Your task to perform on an android device: turn pop-ups off in chrome Image 0: 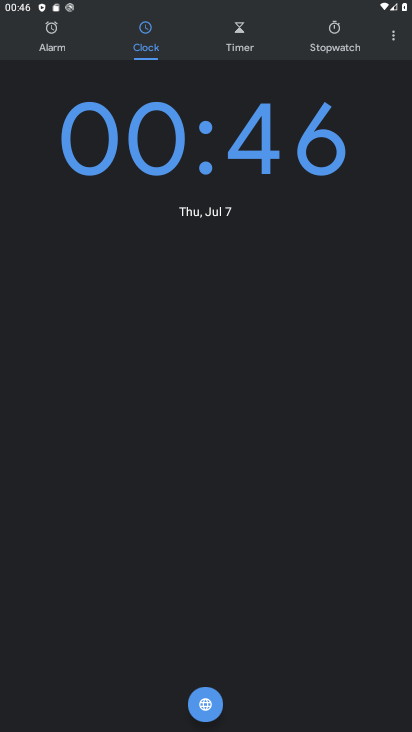
Step 0: press back button
Your task to perform on an android device: turn pop-ups off in chrome Image 1: 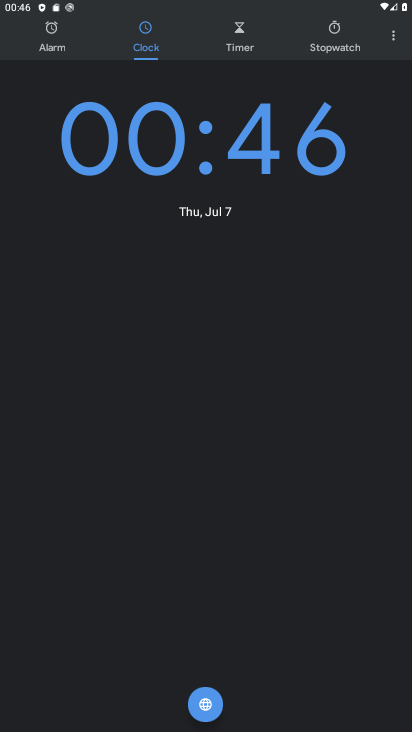
Step 1: press back button
Your task to perform on an android device: turn pop-ups off in chrome Image 2: 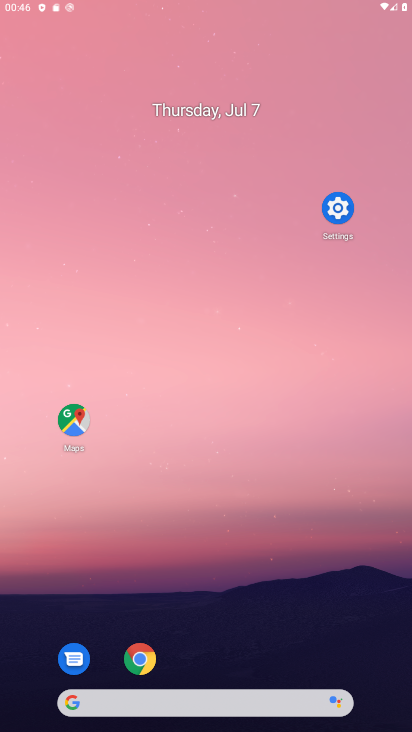
Step 2: press back button
Your task to perform on an android device: turn pop-ups off in chrome Image 3: 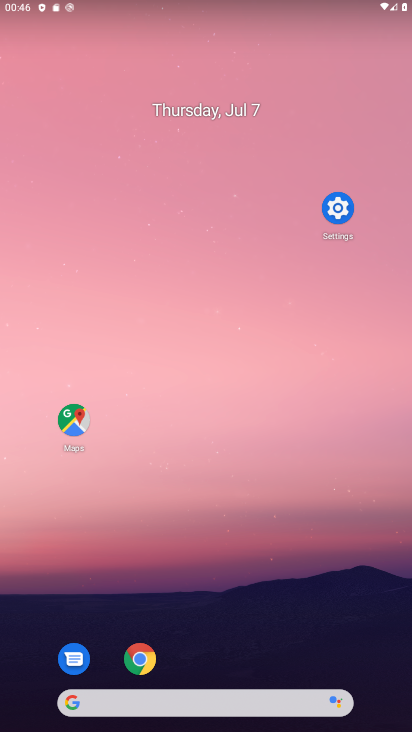
Step 3: drag from (292, 693) to (165, 142)
Your task to perform on an android device: turn pop-ups off in chrome Image 4: 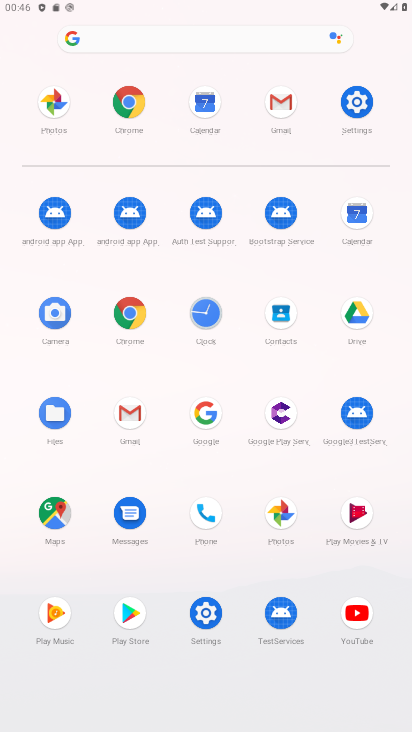
Step 4: click (112, 104)
Your task to perform on an android device: turn pop-ups off in chrome Image 5: 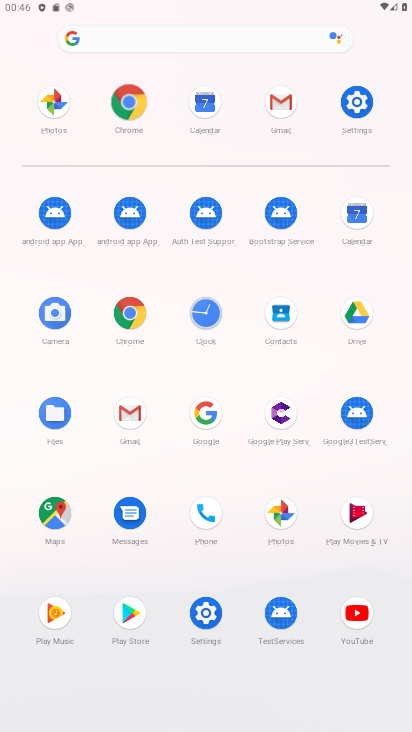
Step 5: click (112, 104)
Your task to perform on an android device: turn pop-ups off in chrome Image 6: 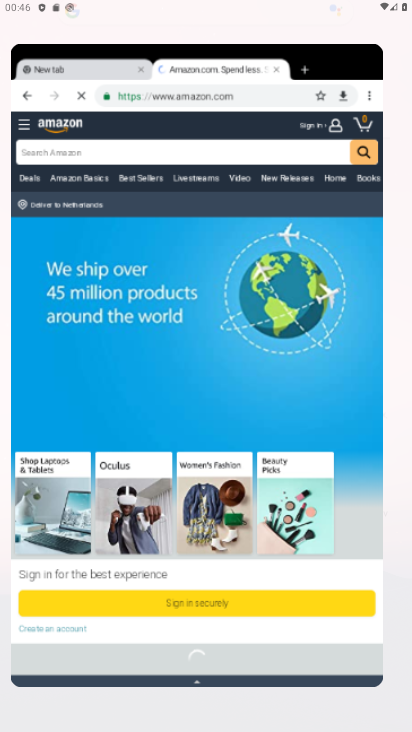
Step 6: click (112, 104)
Your task to perform on an android device: turn pop-ups off in chrome Image 7: 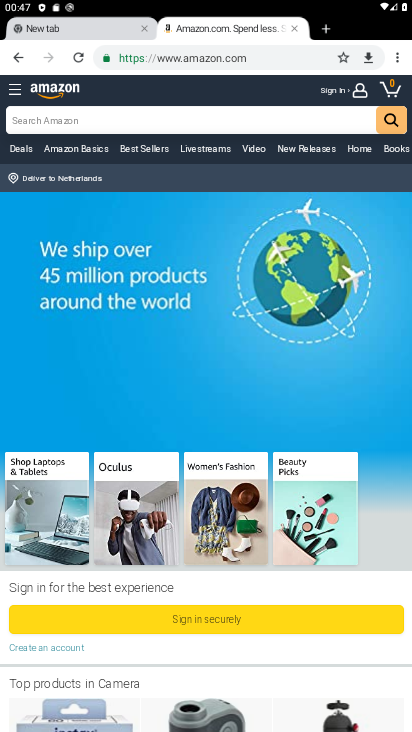
Step 7: drag from (395, 51) to (277, 393)
Your task to perform on an android device: turn pop-ups off in chrome Image 8: 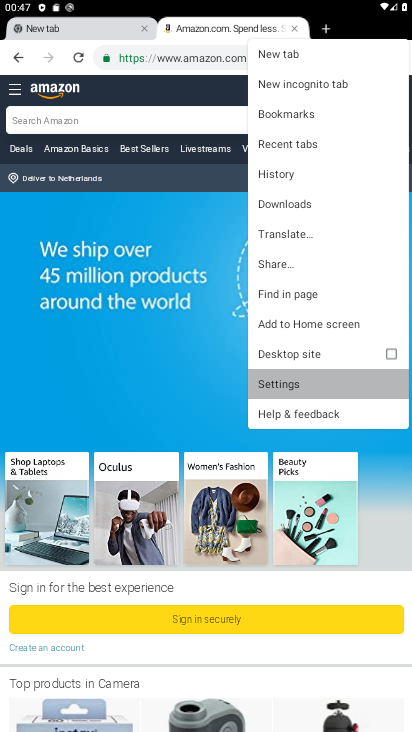
Step 8: click (277, 393)
Your task to perform on an android device: turn pop-ups off in chrome Image 9: 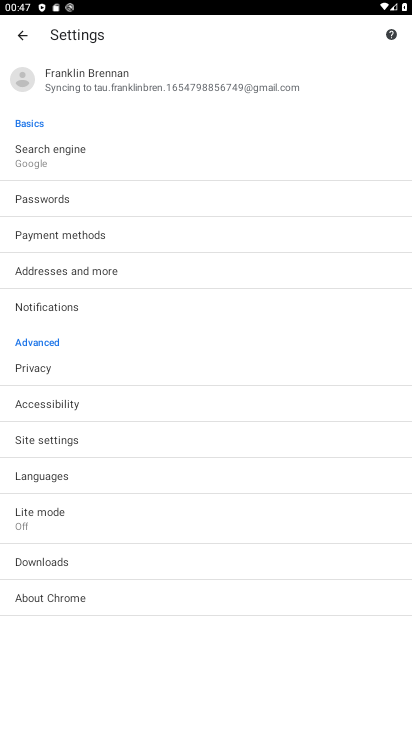
Step 9: click (88, 441)
Your task to perform on an android device: turn pop-ups off in chrome Image 10: 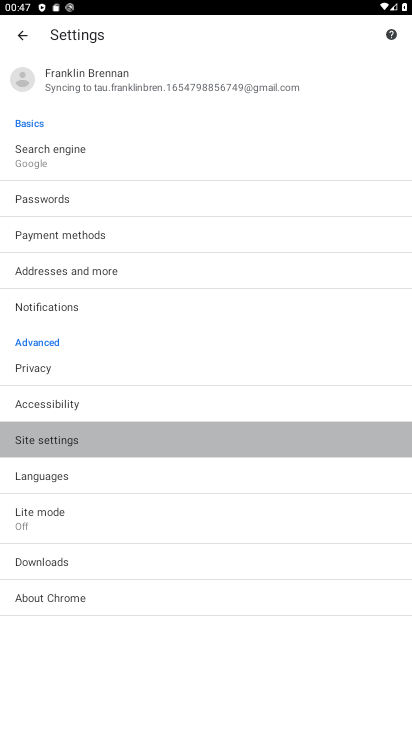
Step 10: click (88, 441)
Your task to perform on an android device: turn pop-ups off in chrome Image 11: 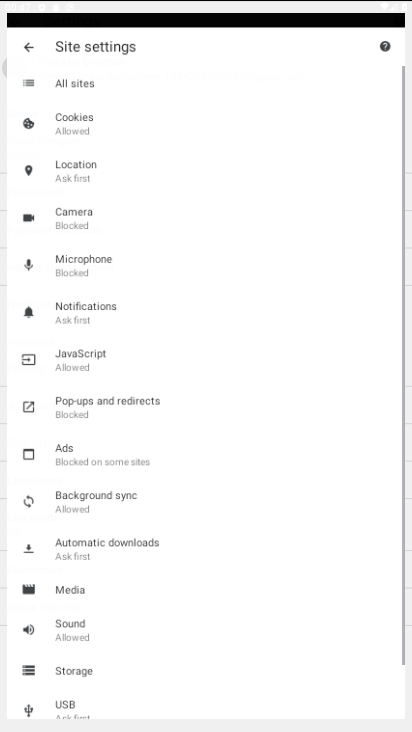
Step 11: click (89, 440)
Your task to perform on an android device: turn pop-ups off in chrome Image 12: 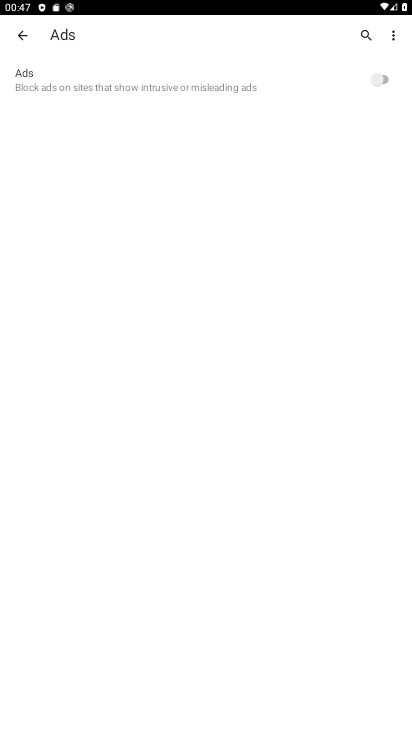
Step 12: click (21, 35)
Your task to perform on an android device: turn pop-ups off in chrome Image 13: 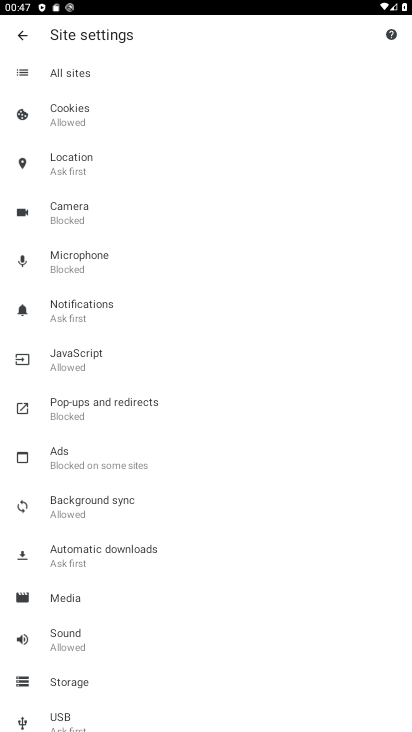
Step 13: click (83, 406)
Your task to perform on an android device: turn pop-ups off in chrome Image 14: 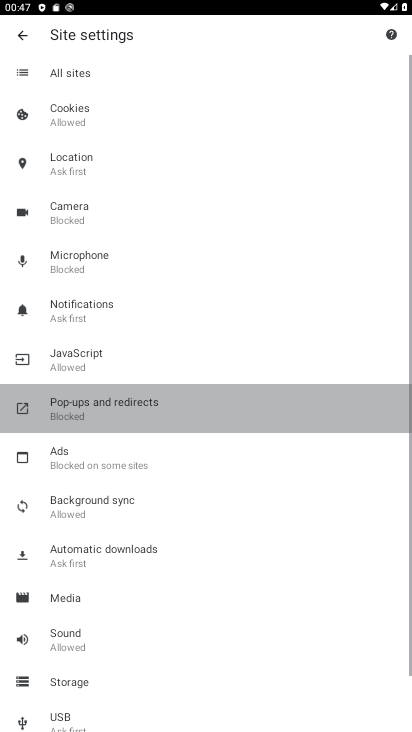
Step 14: click (82, 403)
Your task to perform on an android device: turn pop-ups off in chrome Image 15: 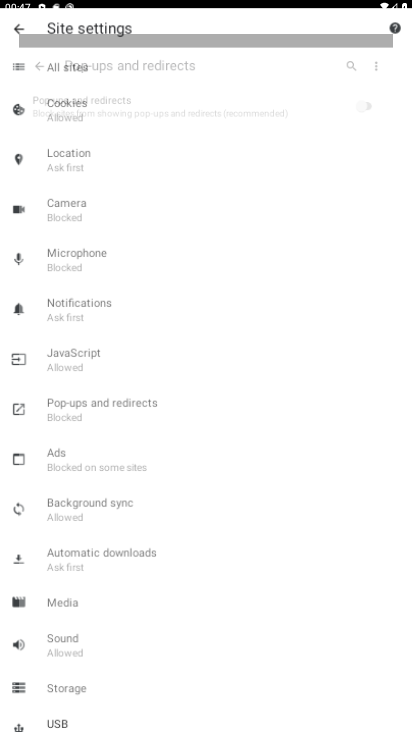
Step 15: click (82, 403)
Your task to perform on an android device: turn pop-ups off in chrome Image 16: 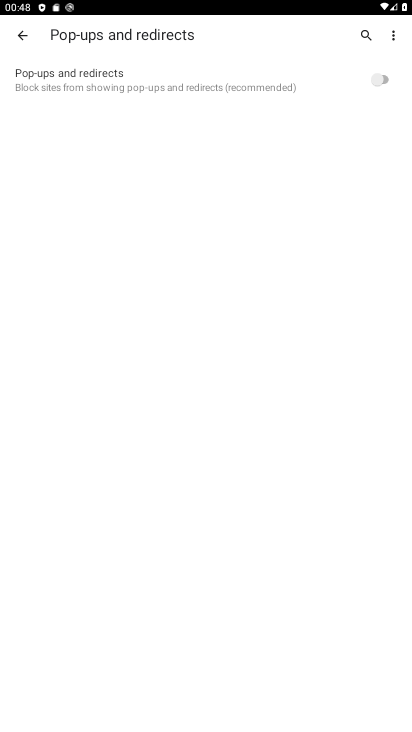
Step 16: task complete